Your task to perform on an android device: Go to settings Image 0: 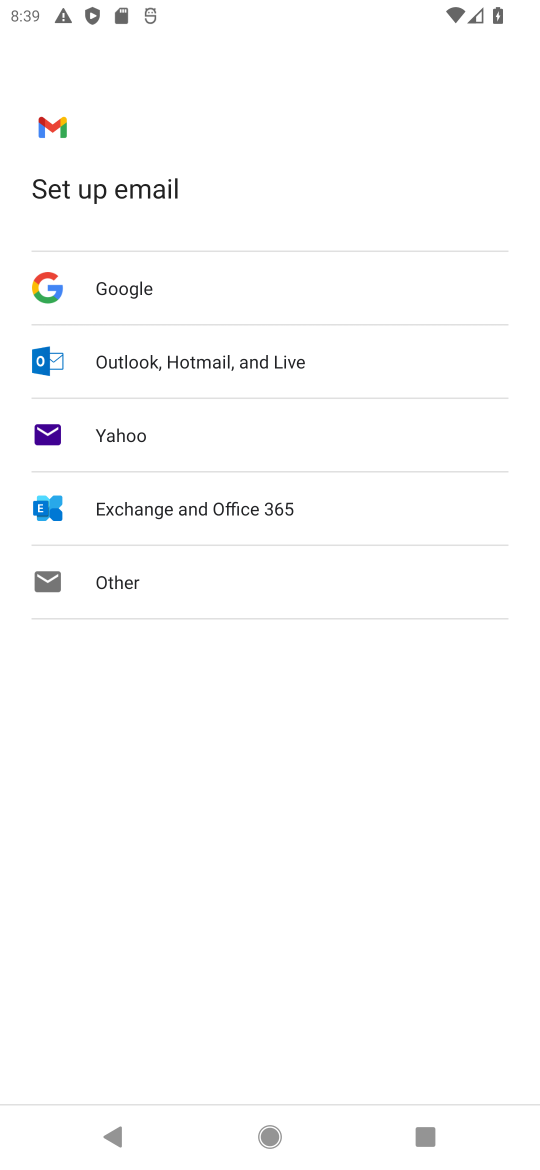
Step 0: press home button
Your task to perform on an android device: Go to settings Image 1: 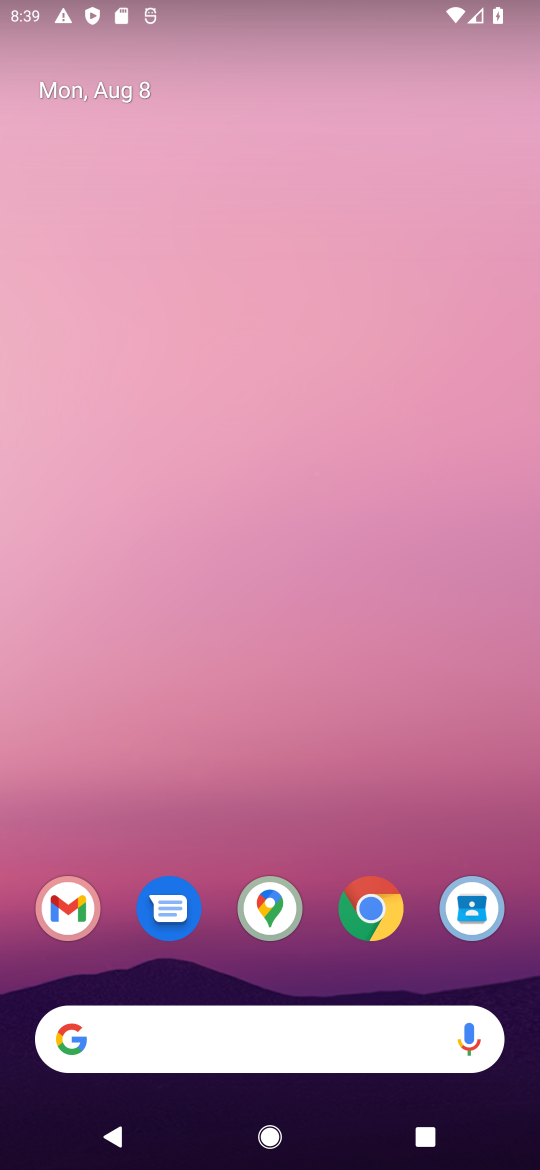
Step 1: drag from (193, 979) to (184, 312)
Your task to perform on an android device: Go to settings Image 2: 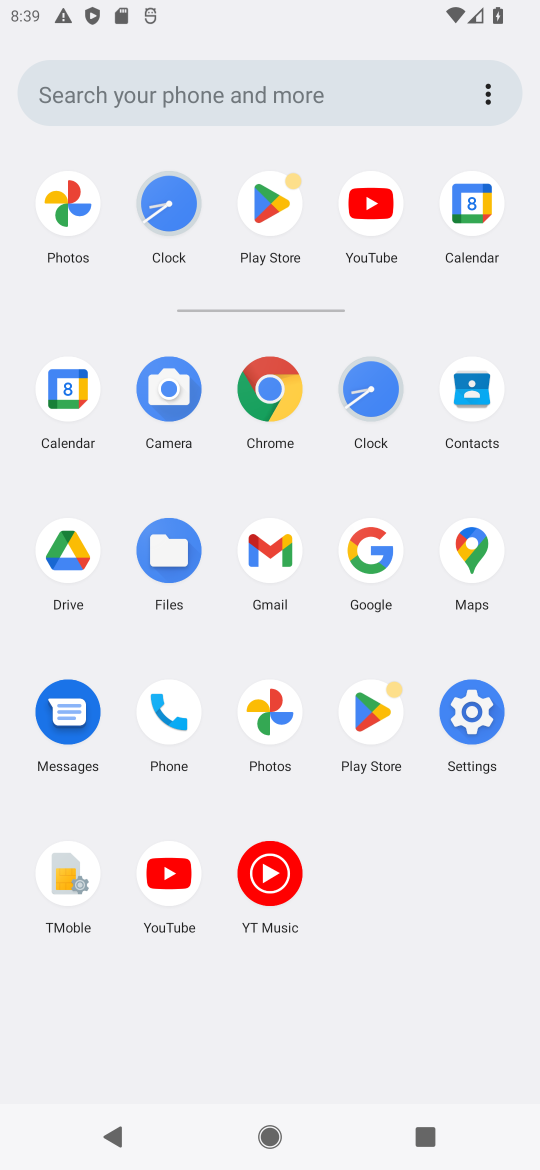
Step 2: click (466, 694)
Your task to perform on an android device: Go to settings Image 3: 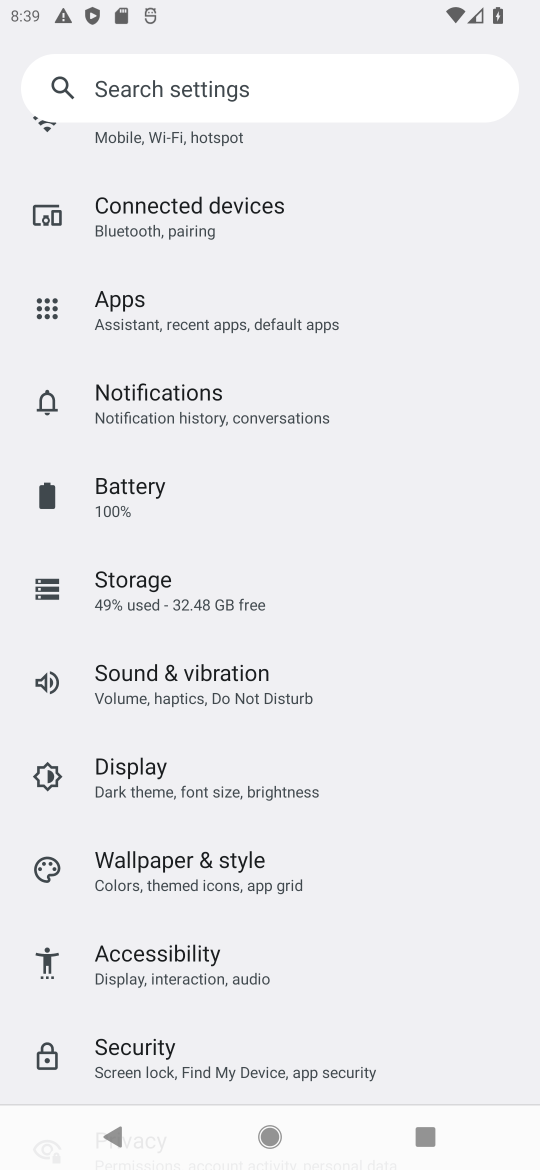
Step 3: task complete